Your task to perform on an android device: What's the weather going to be tomorrow? Image 0: 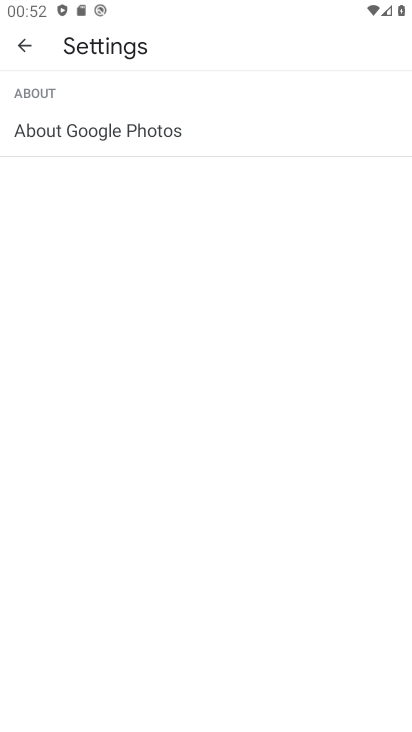
Step 0: press home button
Your task to perform on an android device: What's the weather going to be tomorrow? Image 1: 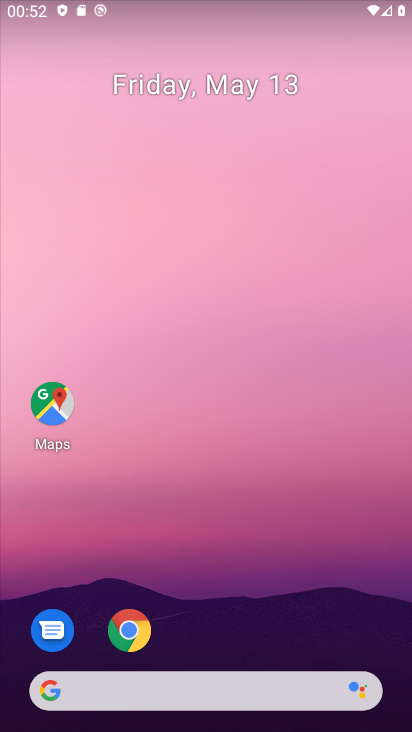
Step 1: drag from (226, 714) to (208, 258)
Your task to perform on an android device: What's the weather going to be tomorrow? Image 2: 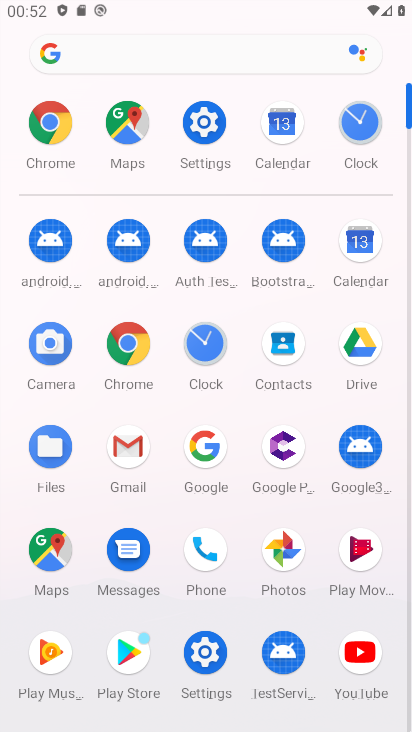
Step 2: click (108, 64)
Your task to perform on an android device: What's the weather going to be tomorrow? Image 3: 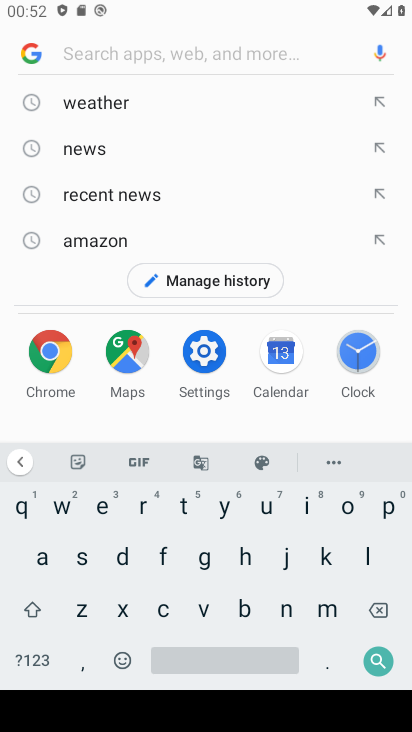
Step 3: click (101, 106)
Your task to perform on an android device: What's the weather going to be tomorrow? Image 4: 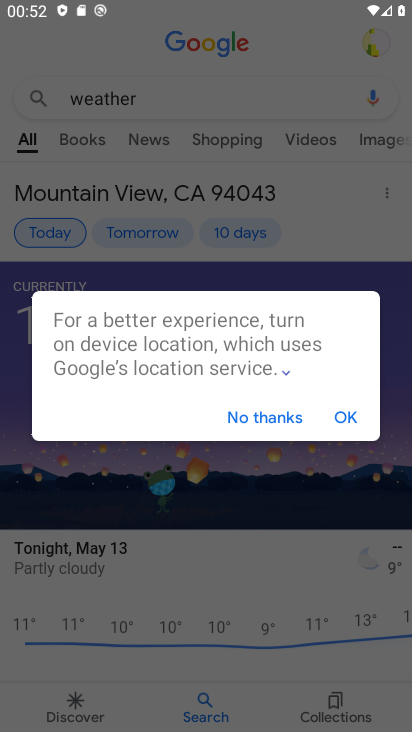
Step 4: click (260, 411)
Your task to perform on an android device: What's the weather going to be tomorrow? Image 5: 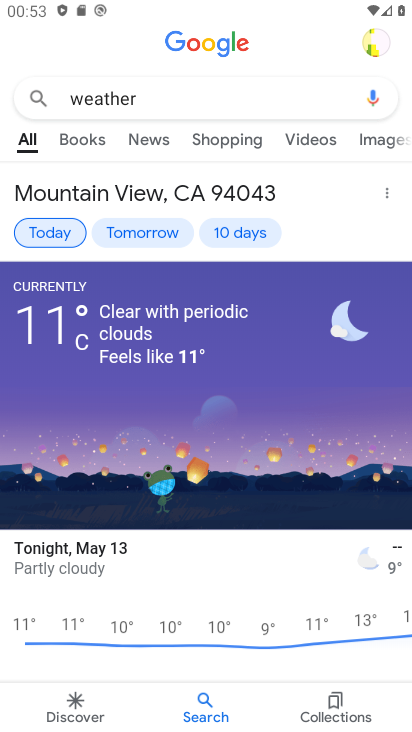
Step 5: click (157, 232)
Your task to perform on an android device: What's the weather going to be tomorrow? Image 6: 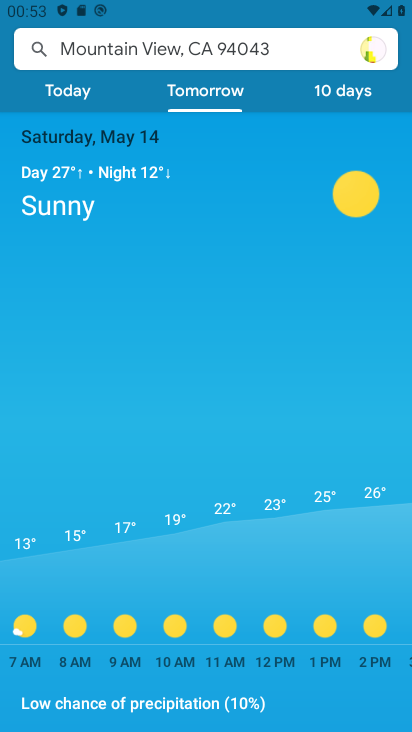
Step 6: task complete